Your task to perform on an android device: turn off improve location accuracy Image 0: 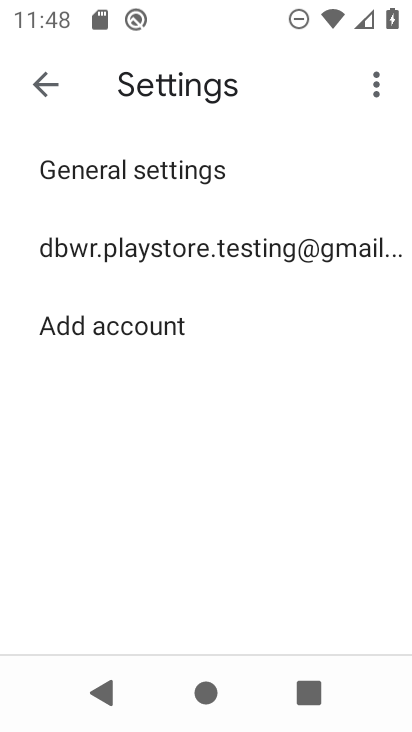
Step 0: press home button
Your task to perform on an android device: turn off improve location accuracy Image 1: 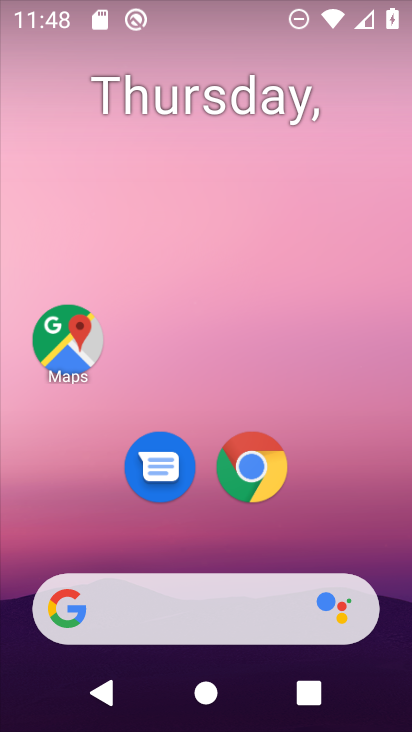
Step 1: drag from (362, 569) to (378, 14)
Your task to perform on an android device: turn off improve location accuracy Image 2: 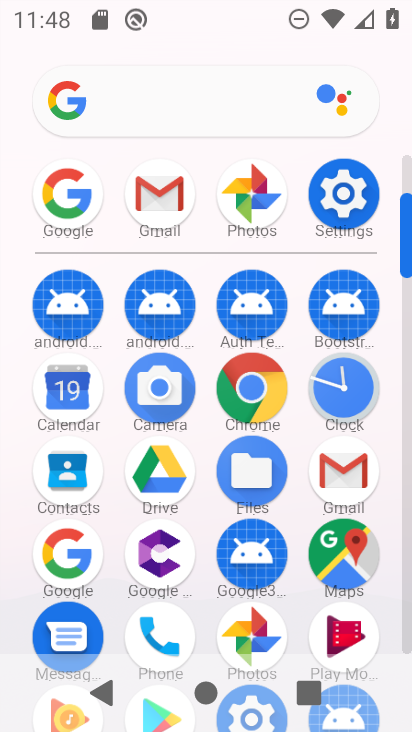
Step 2: click (342, 196)
Your task to perform on an android device: turn off improve location accuracy Image 3: 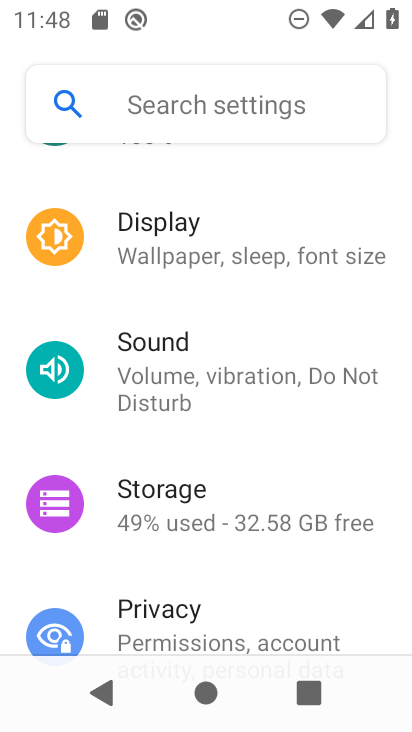
Step 3: drag from (347, 571) to (321, 172)
Your task to perform on an android device: turn off improve location accuracy Image 4: 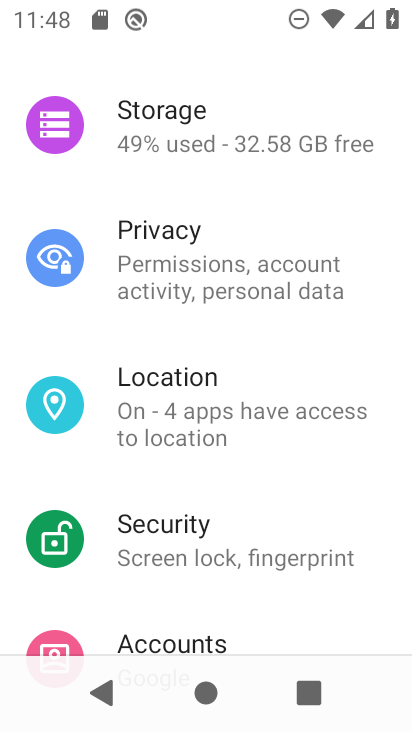
Step 4: click (183, 410)
Your task to perform on an android device: turn off improve location accuracy Image 5: 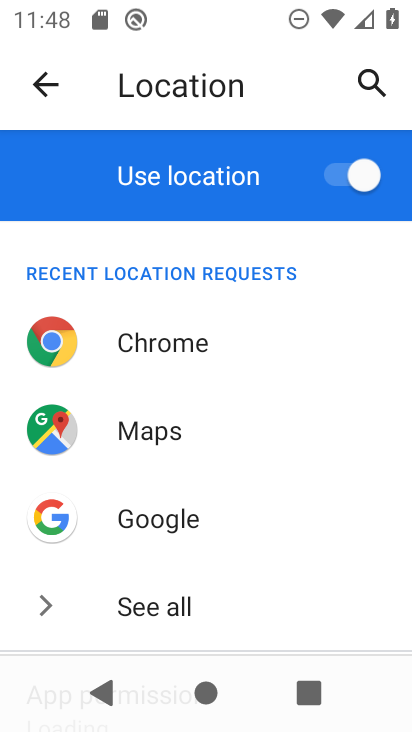
Step 5: drag from (261, 580) to (242, 33)
Your task to perform on an android device: turn off improve location accuracy Image 6: 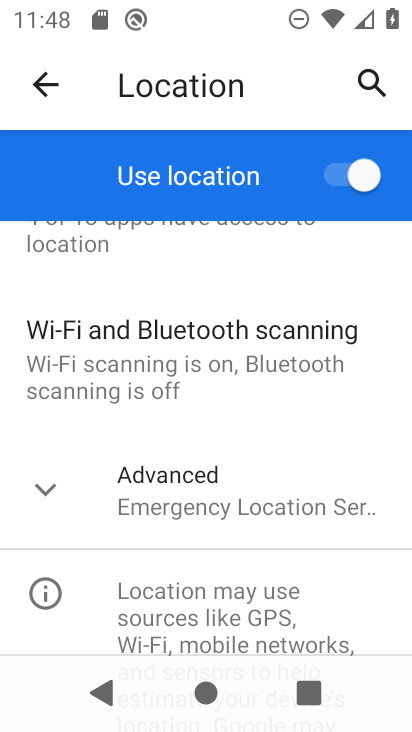
Step 6: click (39, 501)
Your task to perform on an android device: turn off improve location accuracy Image 7: 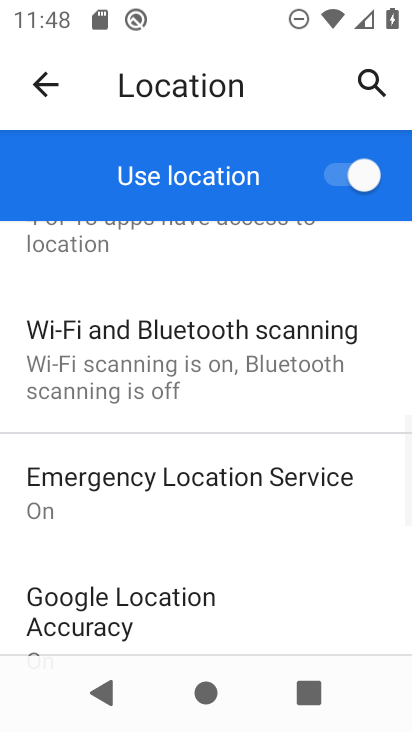
Step 7: drag from (274, 609) to (264, 341)
Your task to perform on an android device: turn off improve location accuracy Image 8: 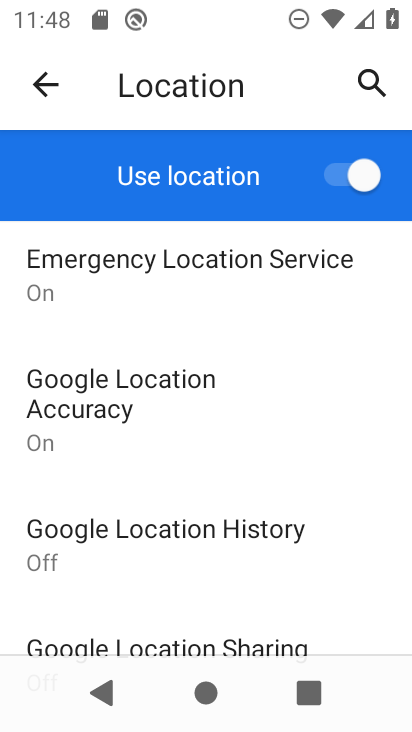
Step 8: click (70, 407)
Your task to perform on an android device: turn off improve location accuracy Image 9: 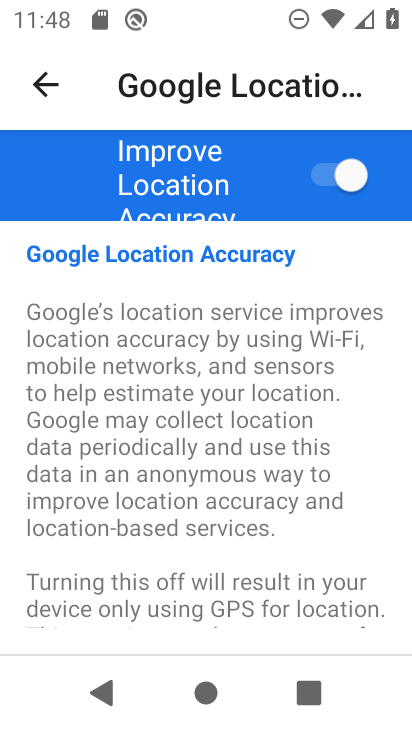
Step 9: click (343, 181)
Your task to perform on an android device: turn off improve location accuracy Image 10: 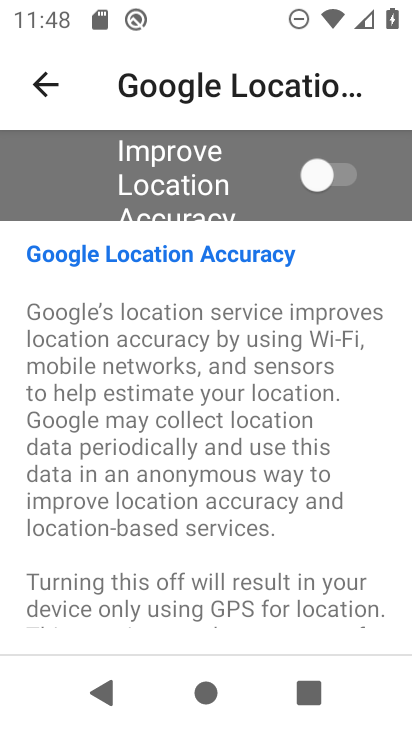
Step 10: task complete